Your task to perform on an android device: allow notifications from all sites in the chrome app Image 0: 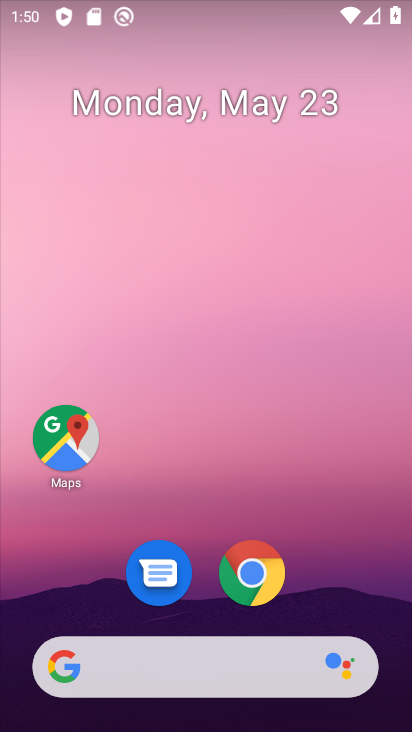
Step 0: click (250, 571)
Your task to perform on an android device: allow notifications from all sites in the chrome app Image 1: 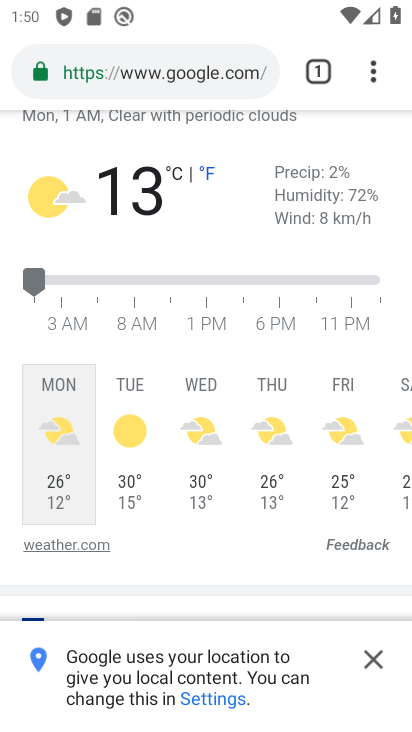
Step 1: drag from (378, 68) to (180, 582)
Your task to perform on an android device: allow notifications from all sites in the chrome app Image 2: 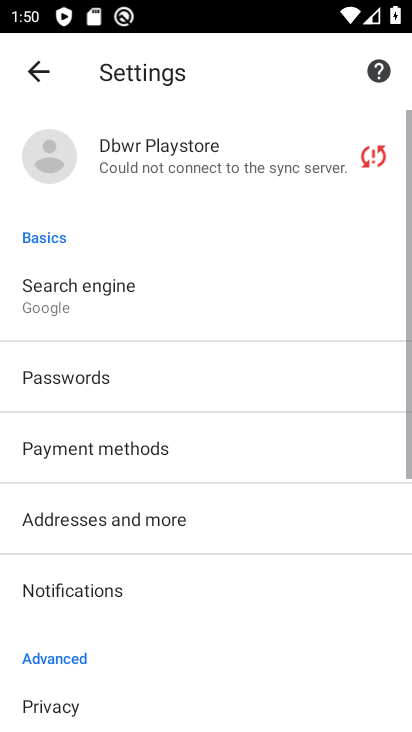
Step 2: drag from (189, 543) to (221, 264)
Your task to perform on an android device: allow notifications from all sites in the chrome app Image 3: 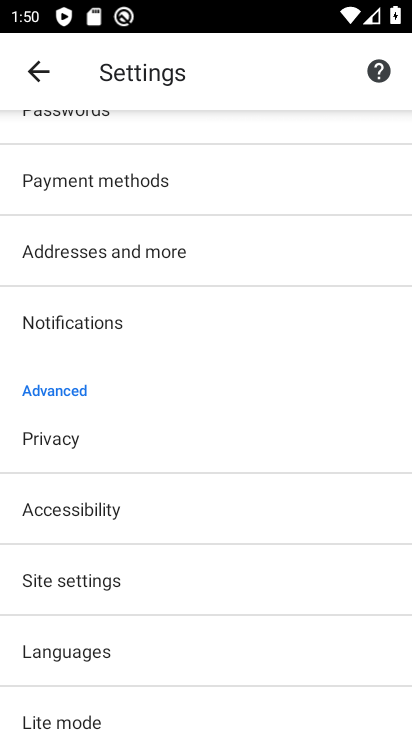
Step 3: drag from (313, 329) to (407, 472)
Your task to perform on an android device: allow notifications from all sites in the chrome app Image 4: 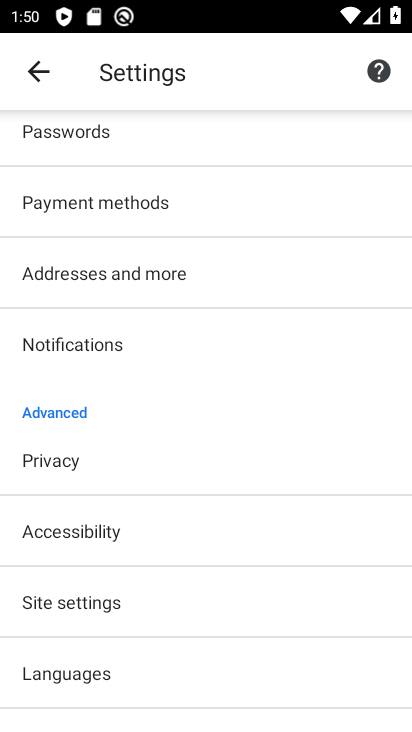
Step 4: drag from (176, 291) to (171, 441)
Your task to perform on an android device: allow notifications from all sites in the chrome app Image 5: 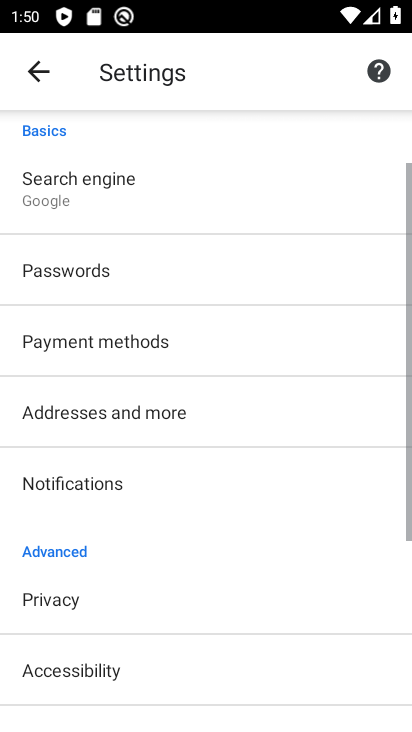
Step 5: click (126, 336)
Your task to perform on an android device: allow notifications from all sites in the chrome app Image 6: 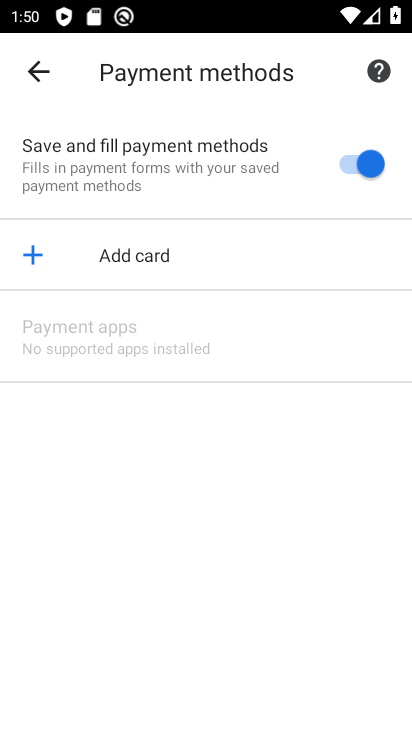
Step 6: click (42, 90)
Your task to perform on an android device: allow notifications from all sites in the chrome app Image 7: 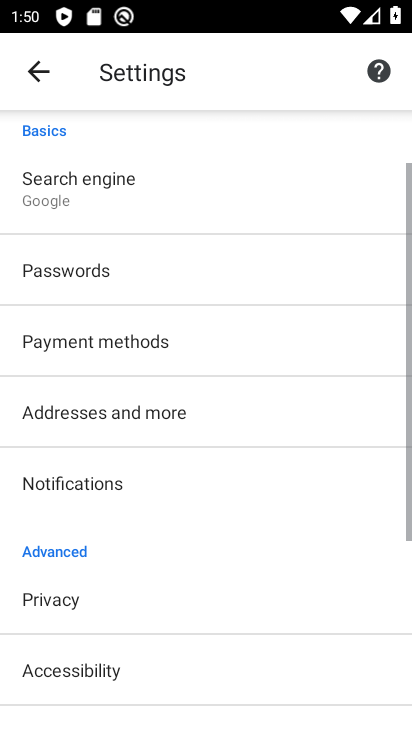
Step 7: click (56, 488)
Your task to perform on an android device: allow notifications from all sites in the chrome app Image 8: 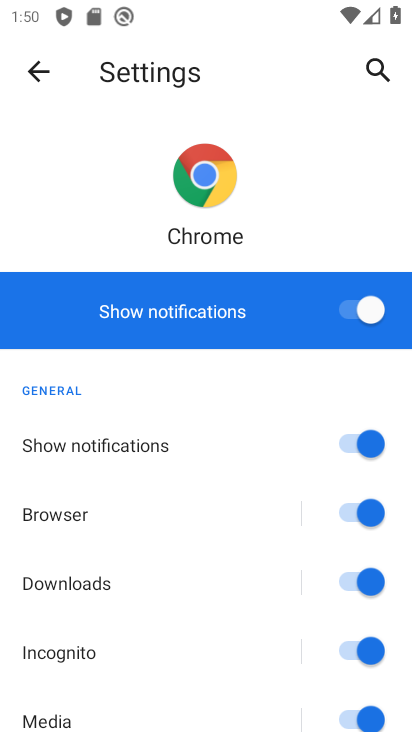
Step 8: task complete